Your task to perform on an android device: turn on airplane mode Image 0: 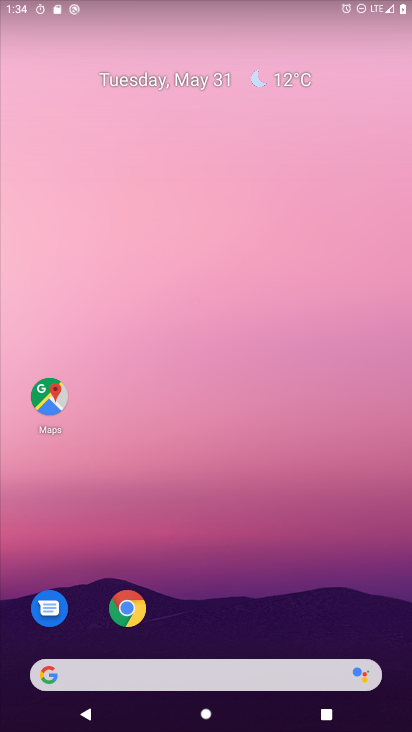
Step 0: drag from (284, 656) to (333, 4)
Your task to perform on an android device: turn on airplane mode Image 1: 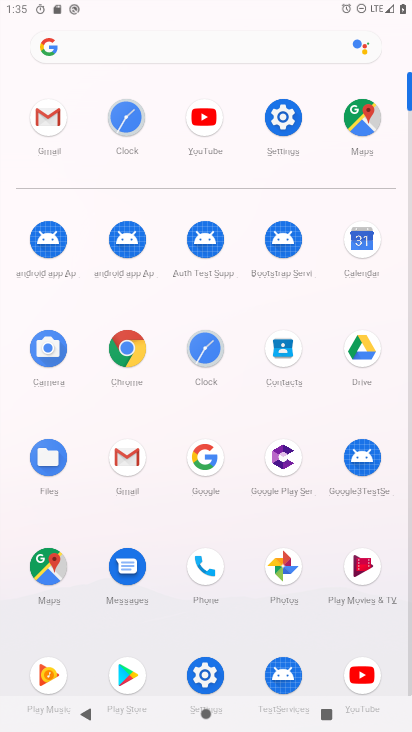
Step 1: click (287, 123)
Your task to perform on an android device: turn on airplane mode Image 2: 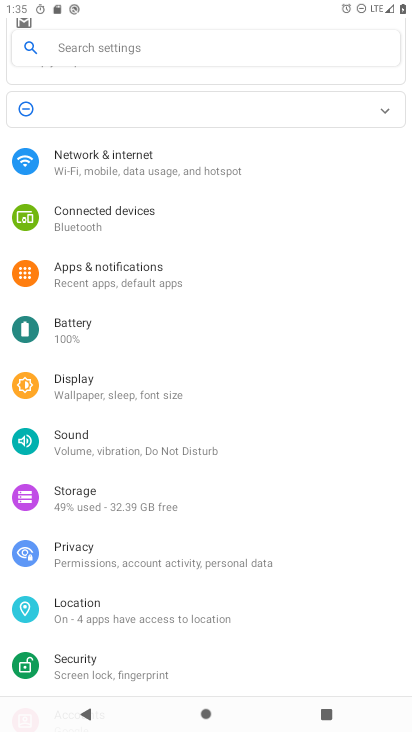
Step 2: click (107, 178)
Your task to perform on an android device: turn on airplane mode Image 3: 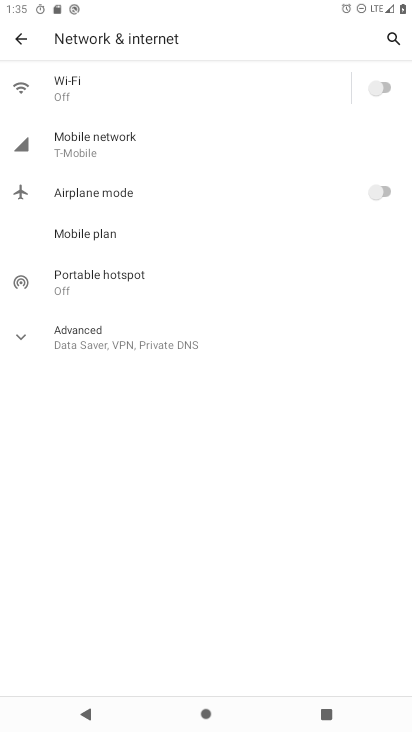
Step 3: click (380, 193)
Your task to perform on an android device: turn on airplane mode Image 4: 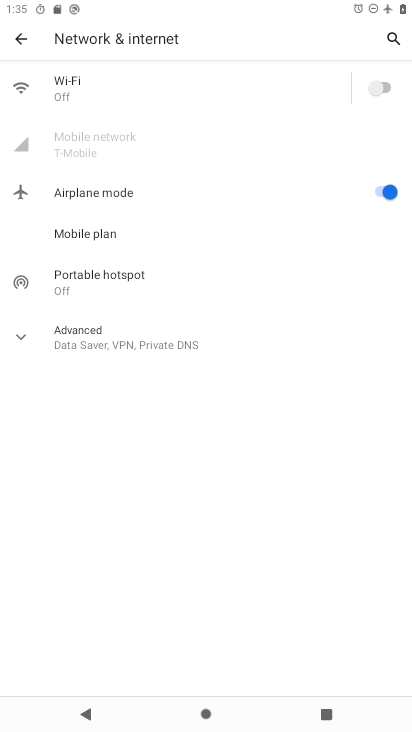
Step 4: task complete